Your task to perform on an android device: toggle airplane mode Image 0: 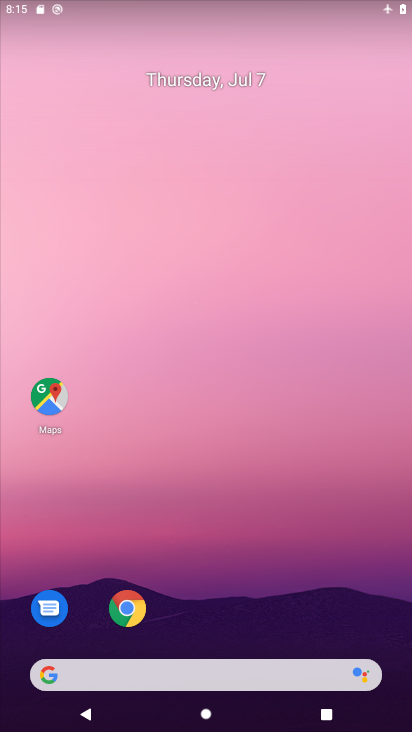
Step 0: drag from (348, 590) to (351, 187)
Your task to perform on an android device: toggle airplane mode Image 1: 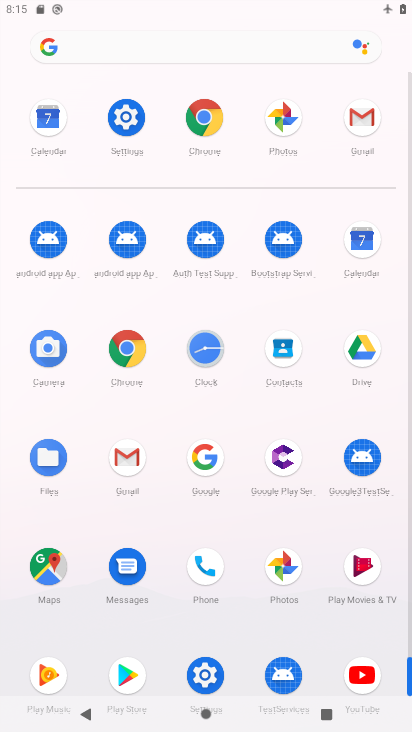
Step 1: click (207, 666)
Your task to perform on an android device: toggle airplane mode Image 2: 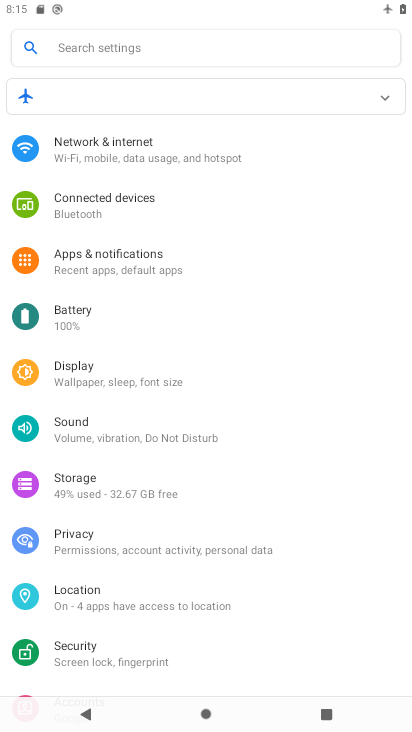
Step 2: drag from (355, 580) to (329, 388)
Your task to perform on an android device: toggle airplane mode Image 3: 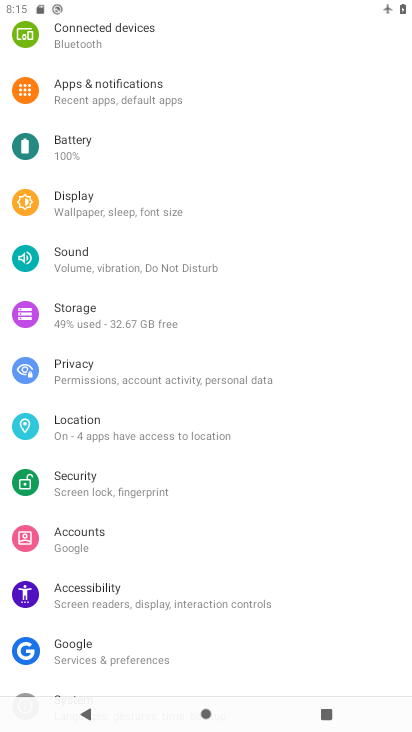
Step 3: drag from (317, 535) to (319, 387)
Your task to perform on an android device: toggle airplane mode Image 4: 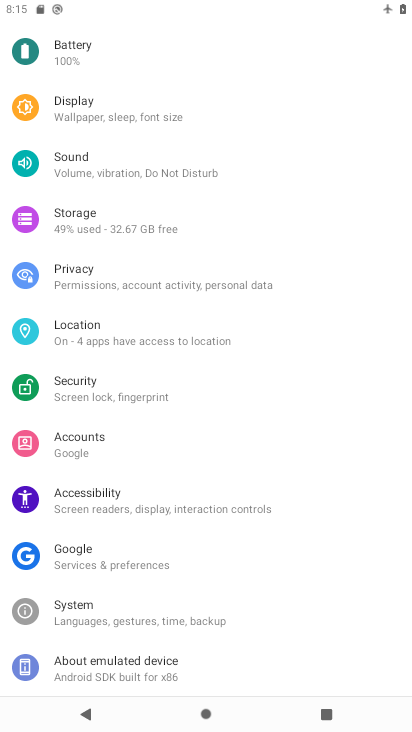
Step 4: drag from (334, 362) to (338, 420)
Your task to perform on an android device: toggle airplane mode Image 5: 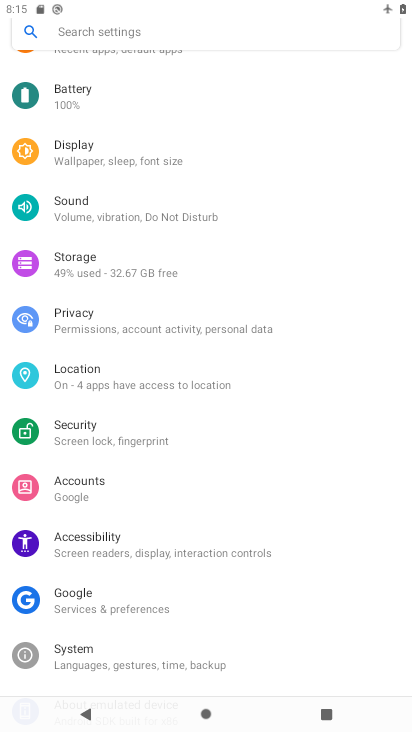
Step 5: drag from (335, 348) to (341, 428)
Your task to perform on an android device: toggle airplane mode Image 6: 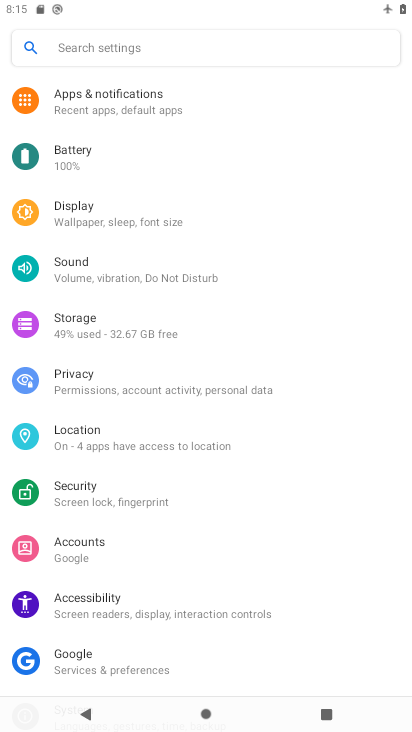
Step 6: drag from (345, 344) to (346, 452)
Your task to perform on an android device: toggle airplane mode Image 7: 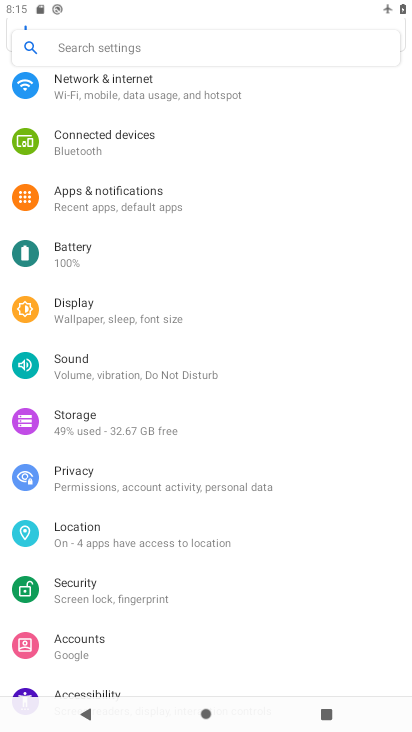
Step 7: drag from (346, 320) to (349, 426)
Your task to perform on an android device: toggle airplane mode Image 8: 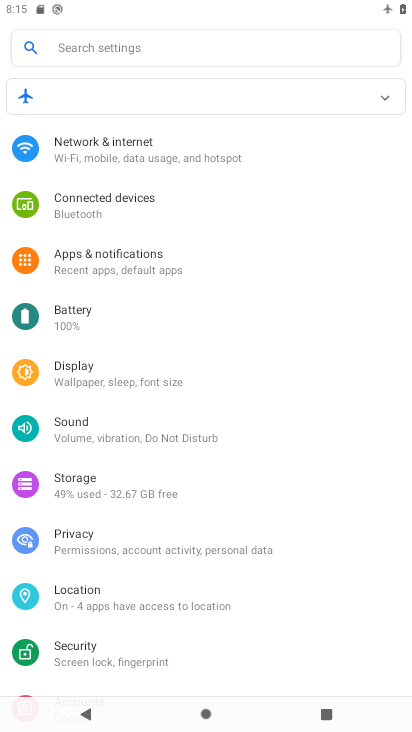
Step 8: drag from (329, 279) to (327, 416)
Your task to perform on an android device: toggle airplane mode Image 9: 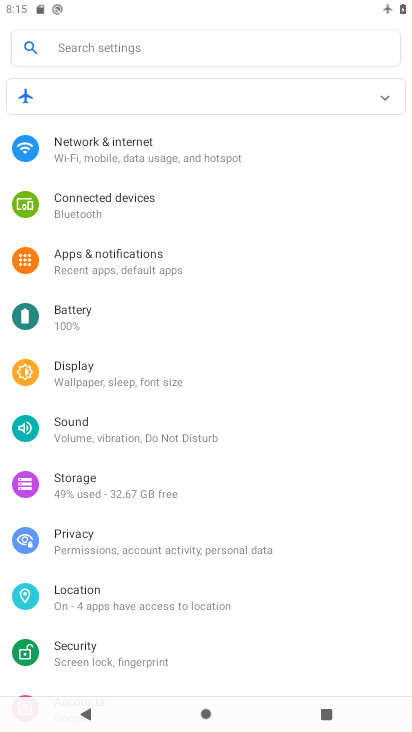
Step 9: click (224, 152)
Your task to perform on an android device: toggle airplane mode Image 10: 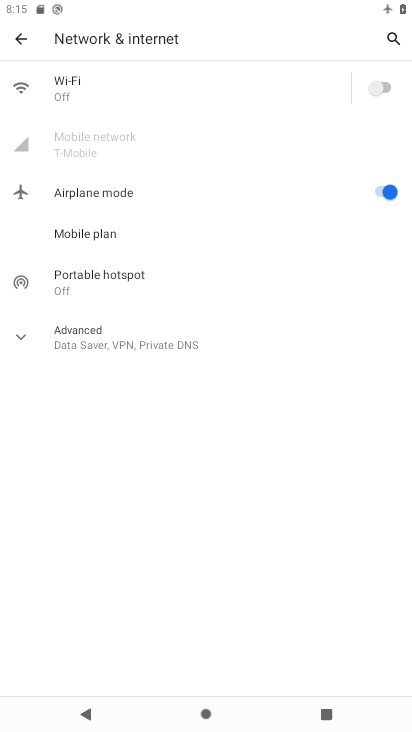
Step 10: click (391, 195)
Your task to perform on an android device: toggle airplane mode Image 11: 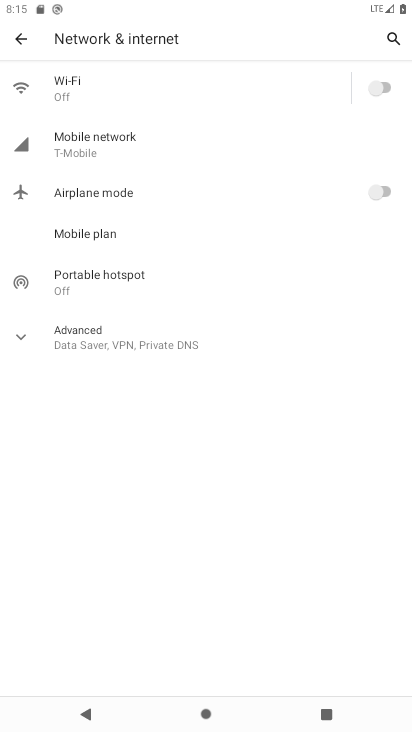
Step 11: task complete